Your task to perform on an android device: Clear the cart on newegg. Search for usb-a to usb-b on newegg, select the first entry, and add it to the cart. Image 0: 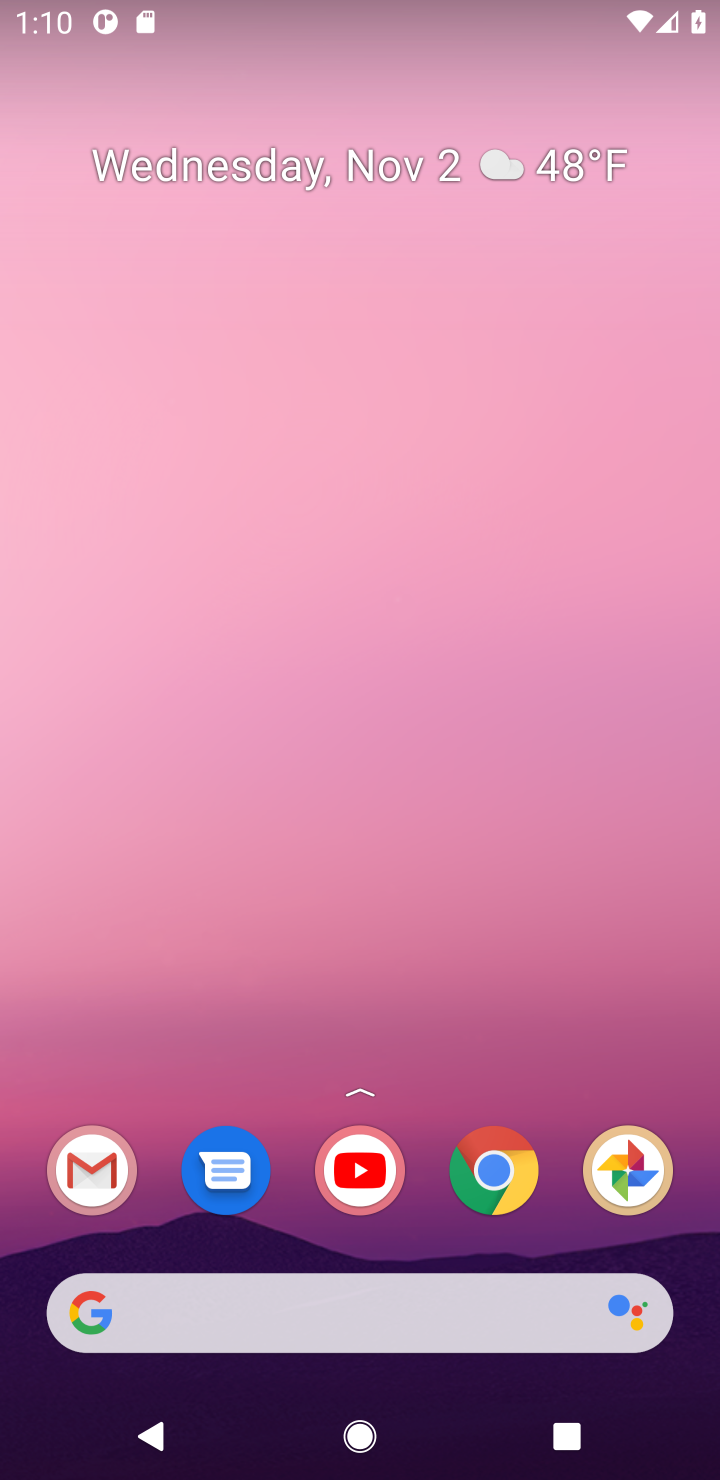
Step 0: press home button
Your task to perform on an android device: Clear the cart on newegg. Search for usb-a to usb-b on newegg, select the first entry, and add it to the cart. Image 1: 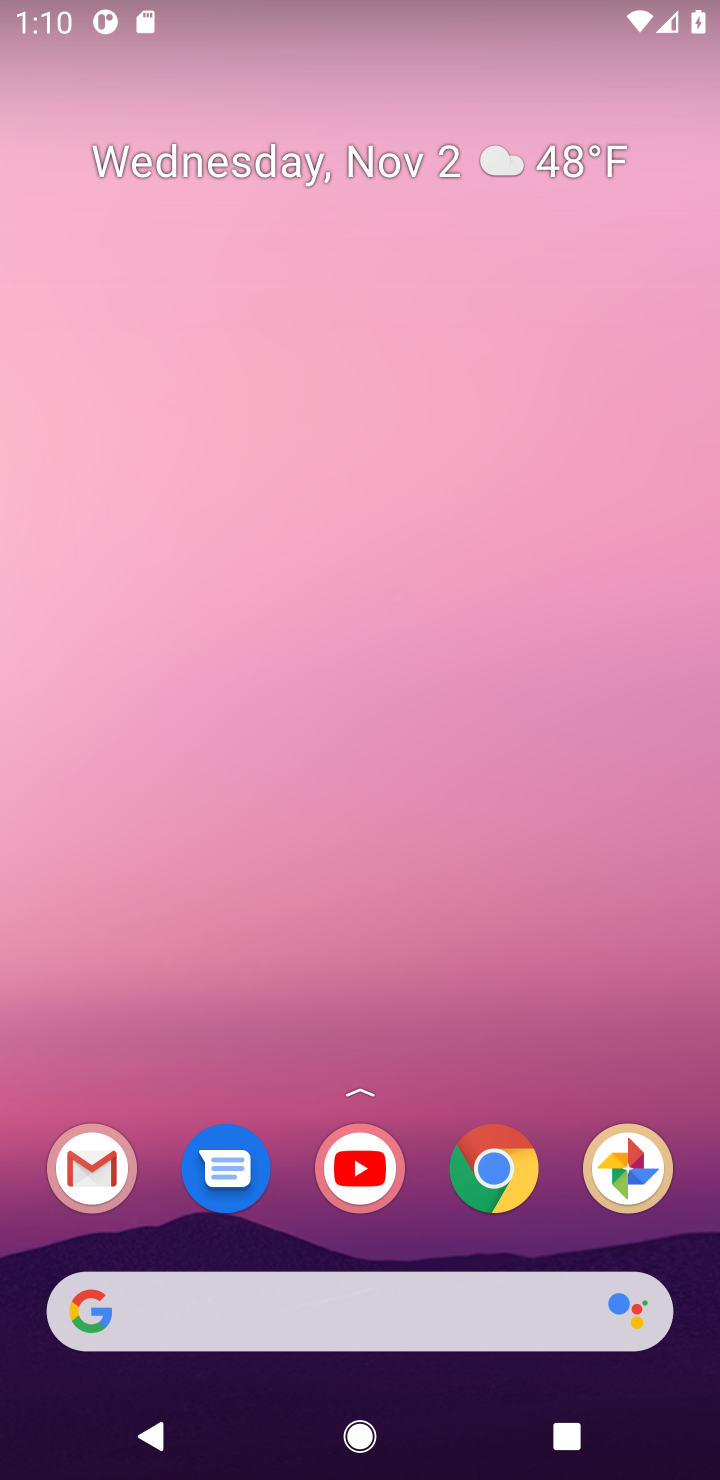
Step 1: click (324, 1291)
Your task to perform on an android device: Clear the cart on newegg. Search for usb-a to usb-b on newegg, select the first entry, and add it to the cart. Image 2: 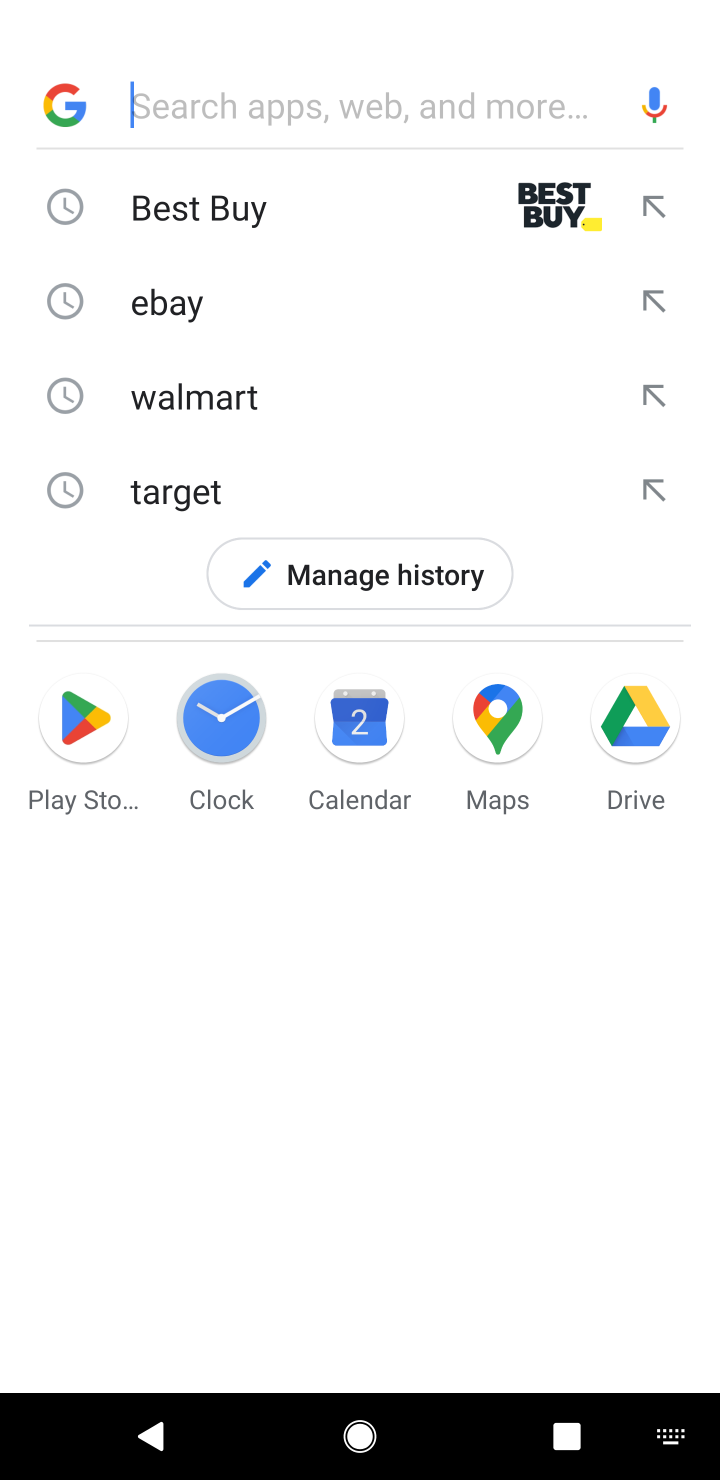
Step 2: type "newegg"
Your task to perform on an android device: Clear the cart on newegg. Search for usb-a to usb-b on newegg, select the first entry, and add it to the cart. Image 3: 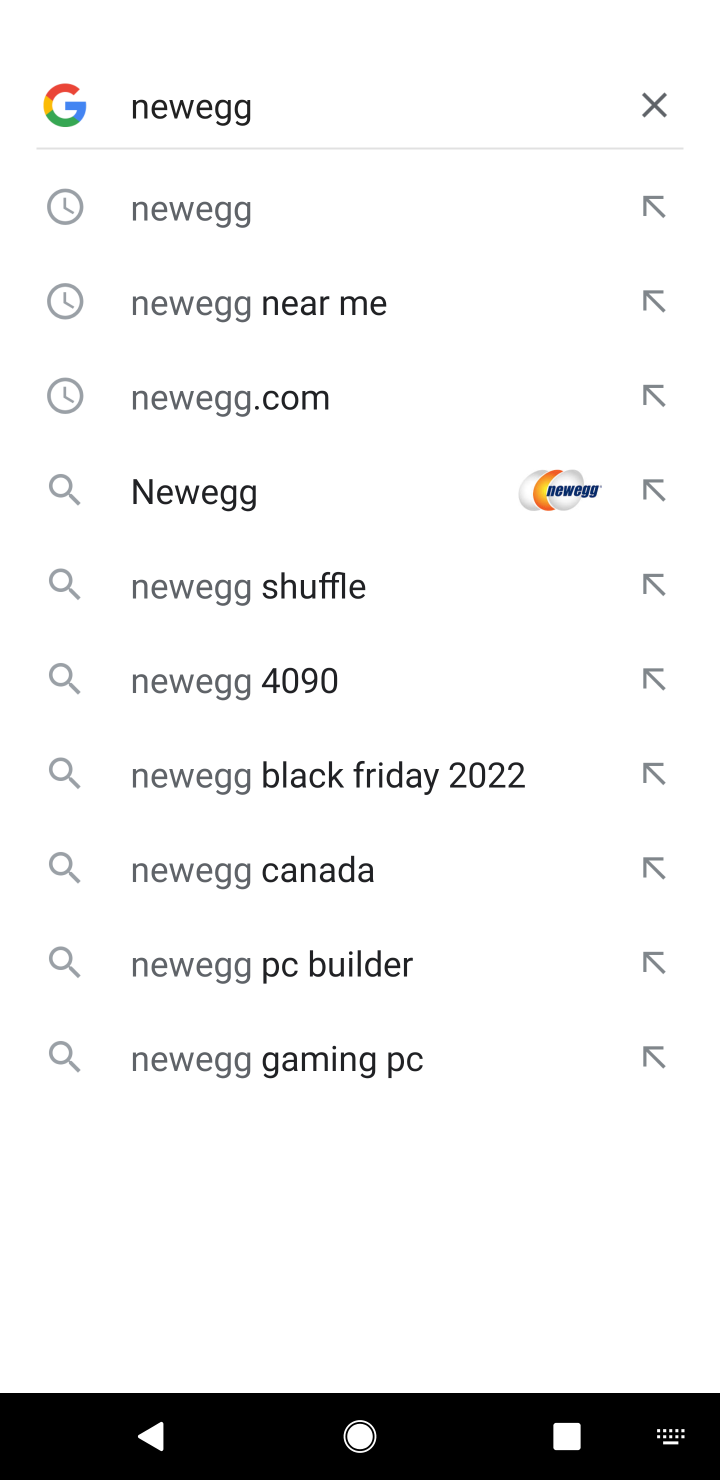
Step 3: click (202, 213)
Your task to perform on an android device: Clear the cart on newegg. Search for usb-a to usb-b on newegg, select the first entry, and add it to the cart. Image 4: 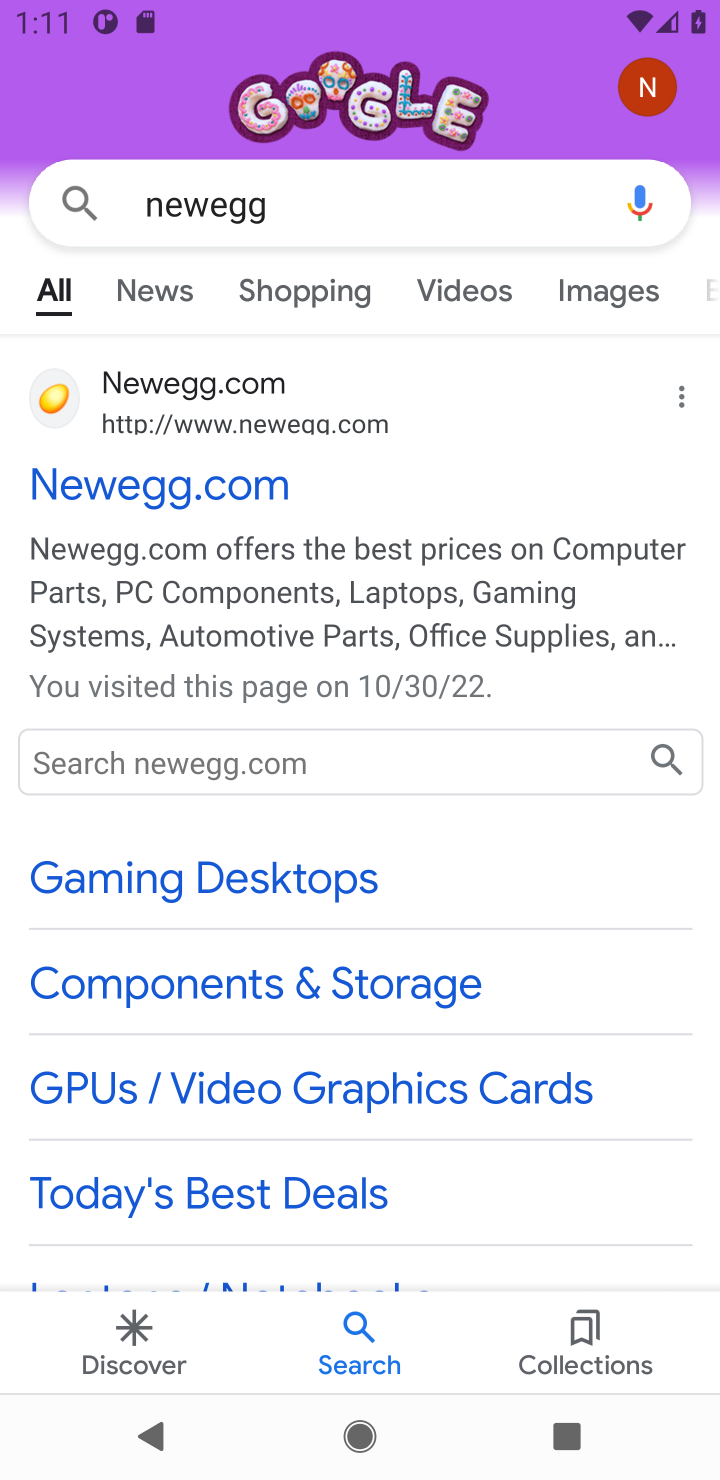
Step 4: click (128, 483)
Your task to perform on an android device: Clear the cart on newegg. Search for usb-a to usb-b on newegg, select the first entry, and add it to the cart. Image 5: 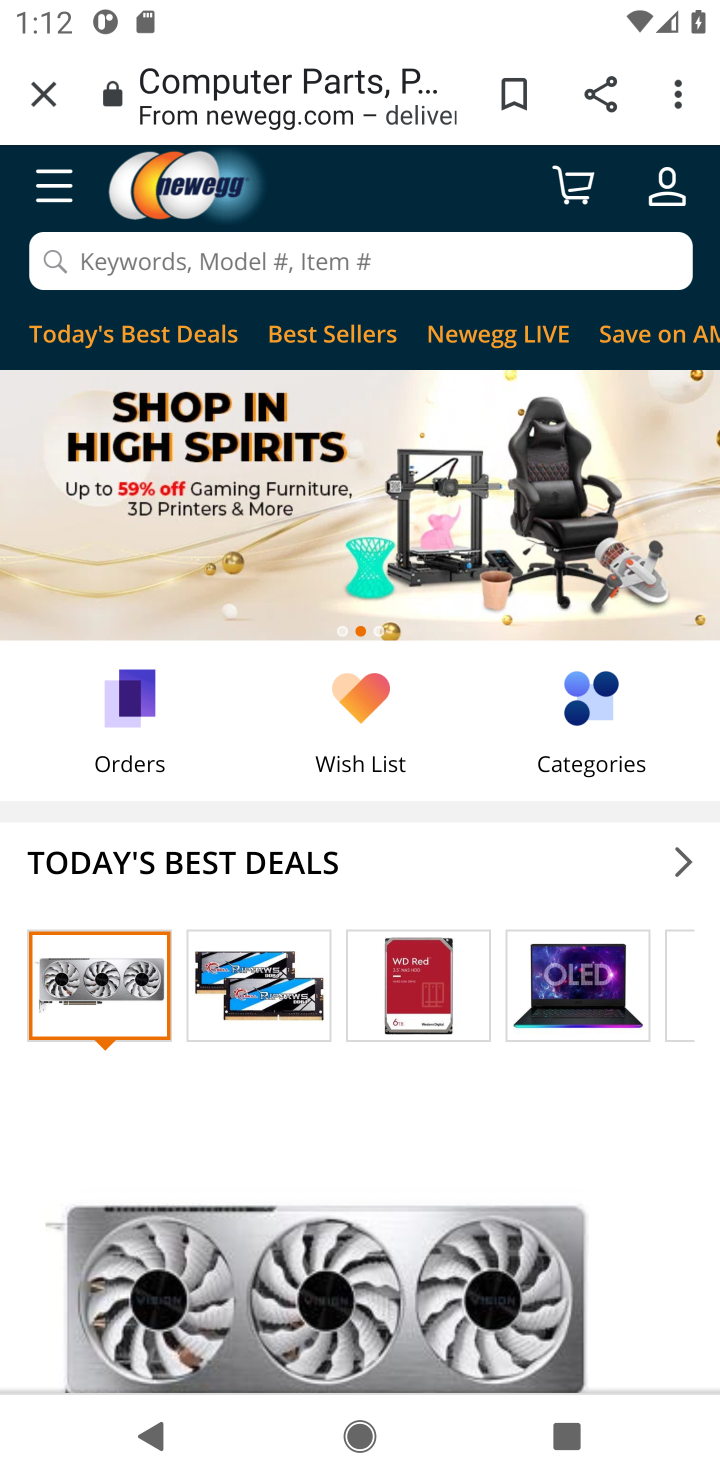
Step 5: click (307, 262)
Your task to perform on an android device: Clear the cart on newegg. Search for usb-a to usb-b on newegg, select the first entry, and add it to the cart. Image 6: 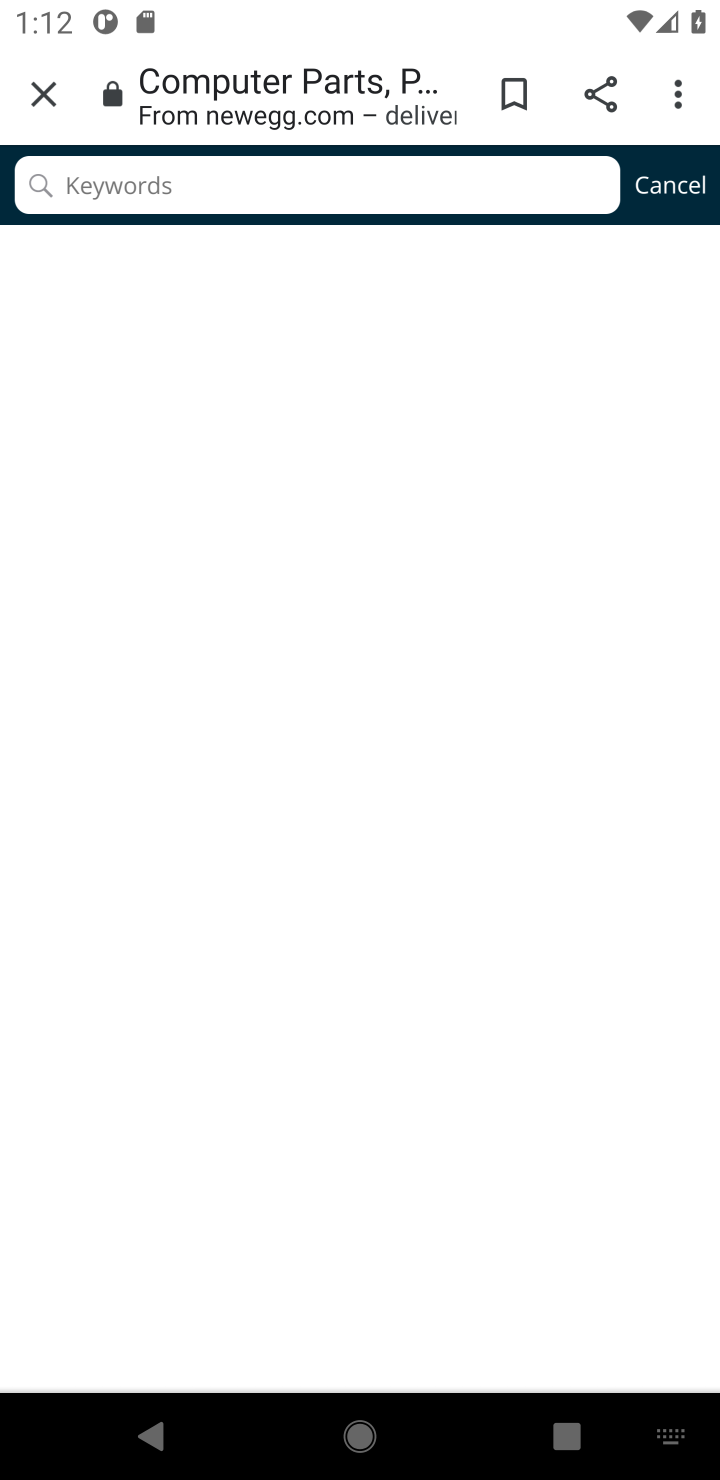
Step 6: click (680, 186)
Your task to perform on an android device: Clear the cart on newegg. Search for usb-a to usb-b on newegg, select the first entry, and add it to the cart. Image 7: 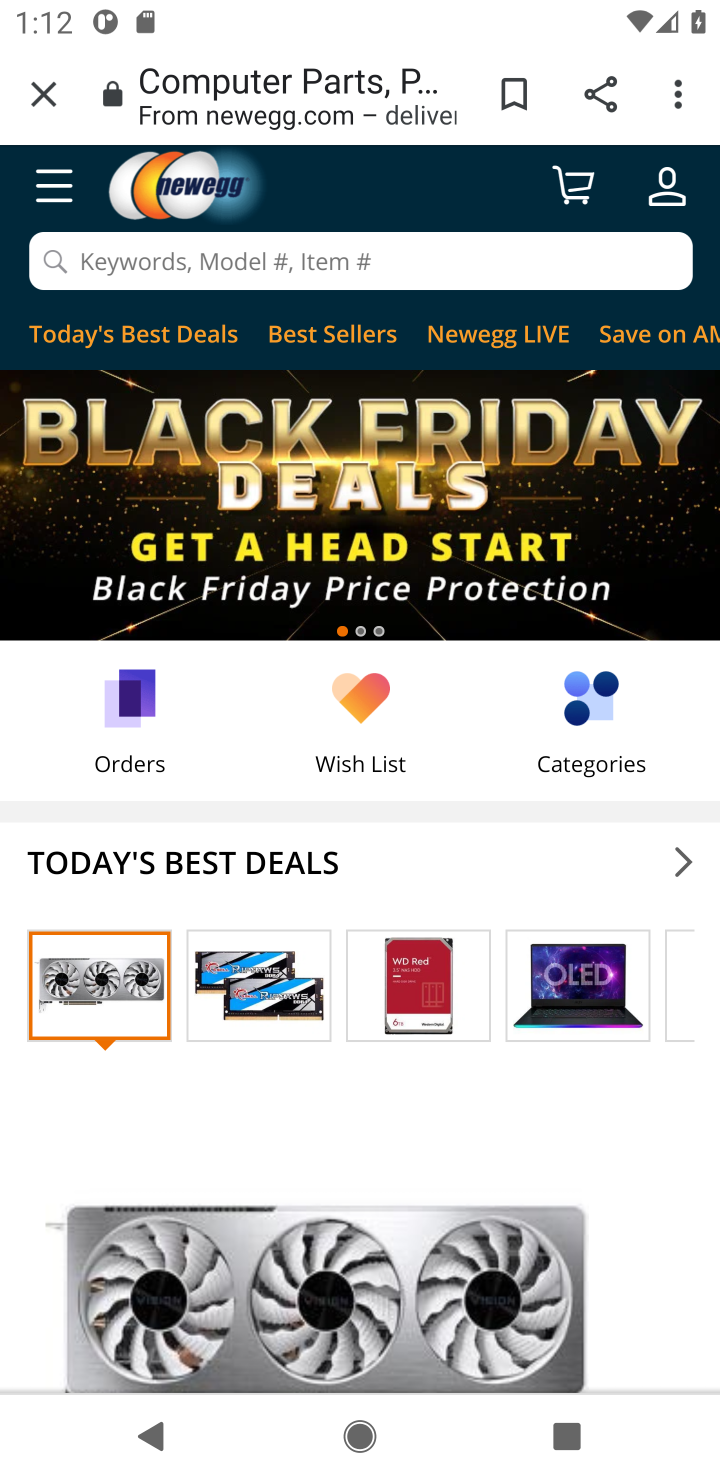
Step 7: click (567, 193)
Your task to perform on an android device: Clear the cart on newegg. Search for usb-a to usb-b on newegg, select the first entry, and add it to the cart. Image 8: 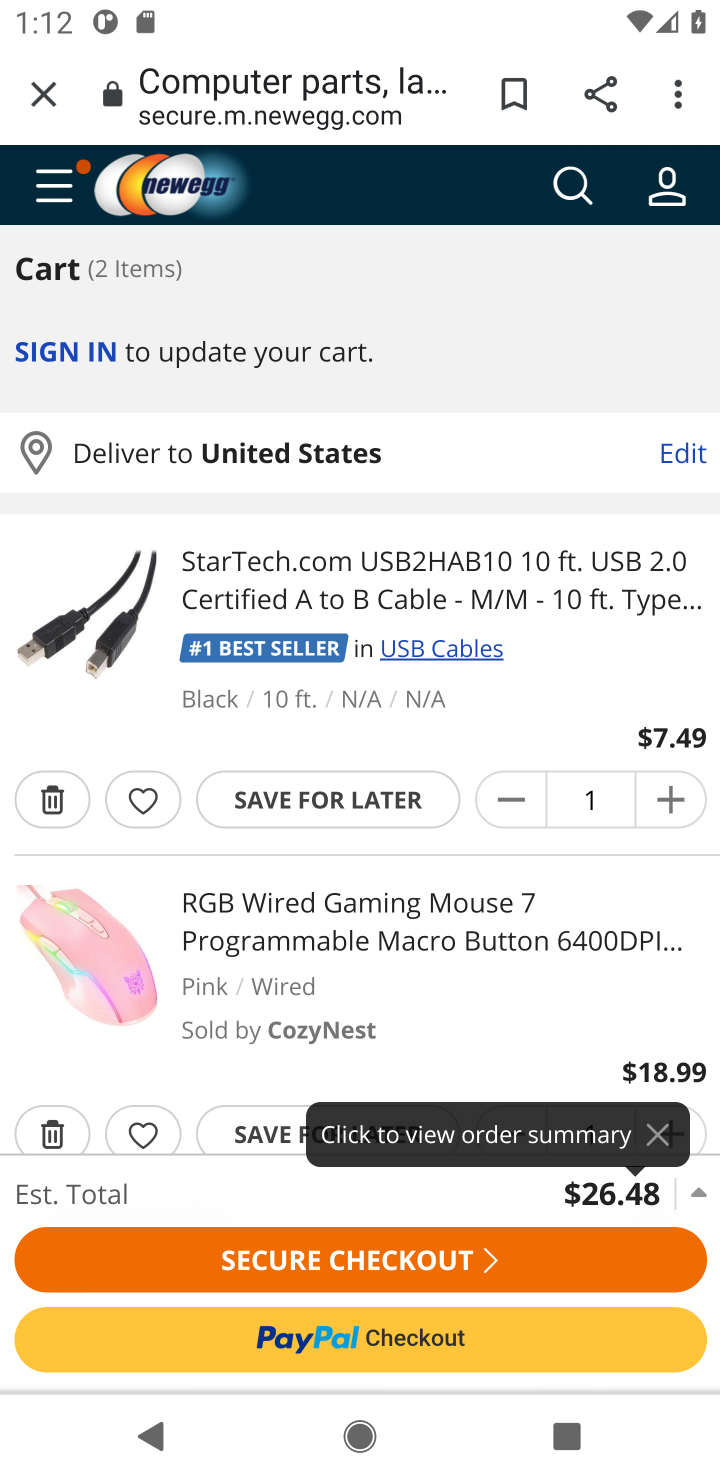
Step 8: click (32, 815)
Your task to perform on an android device: Clear the cart on newegg. Search for usb-a to usb-b on newegg, select the first entry, and add it to the cart. Image 9: 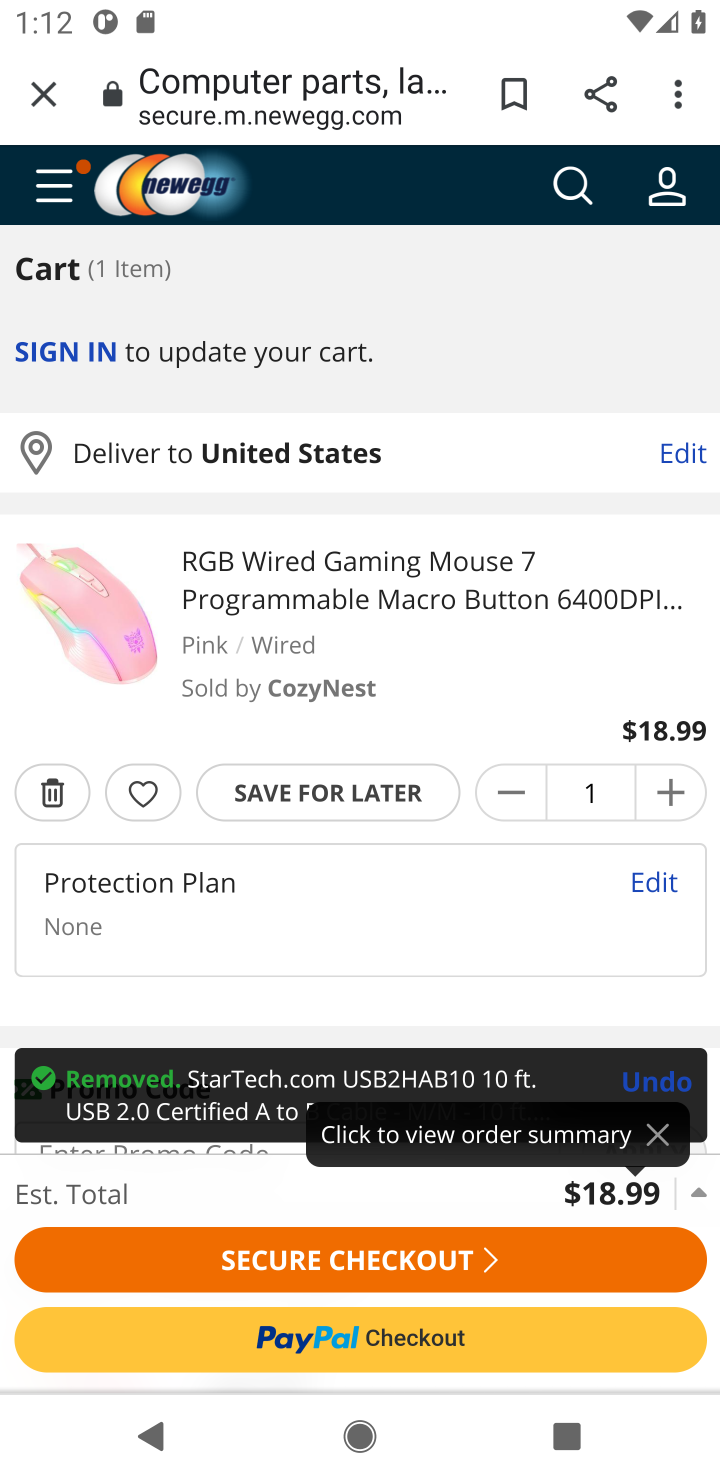
Step 9: click (39, 795)
Your task to perform on an android device: Clear the cart on newegg. Search for usb-a to usb-b on newegg, select the first entry, and add it to the cart. Image 10: 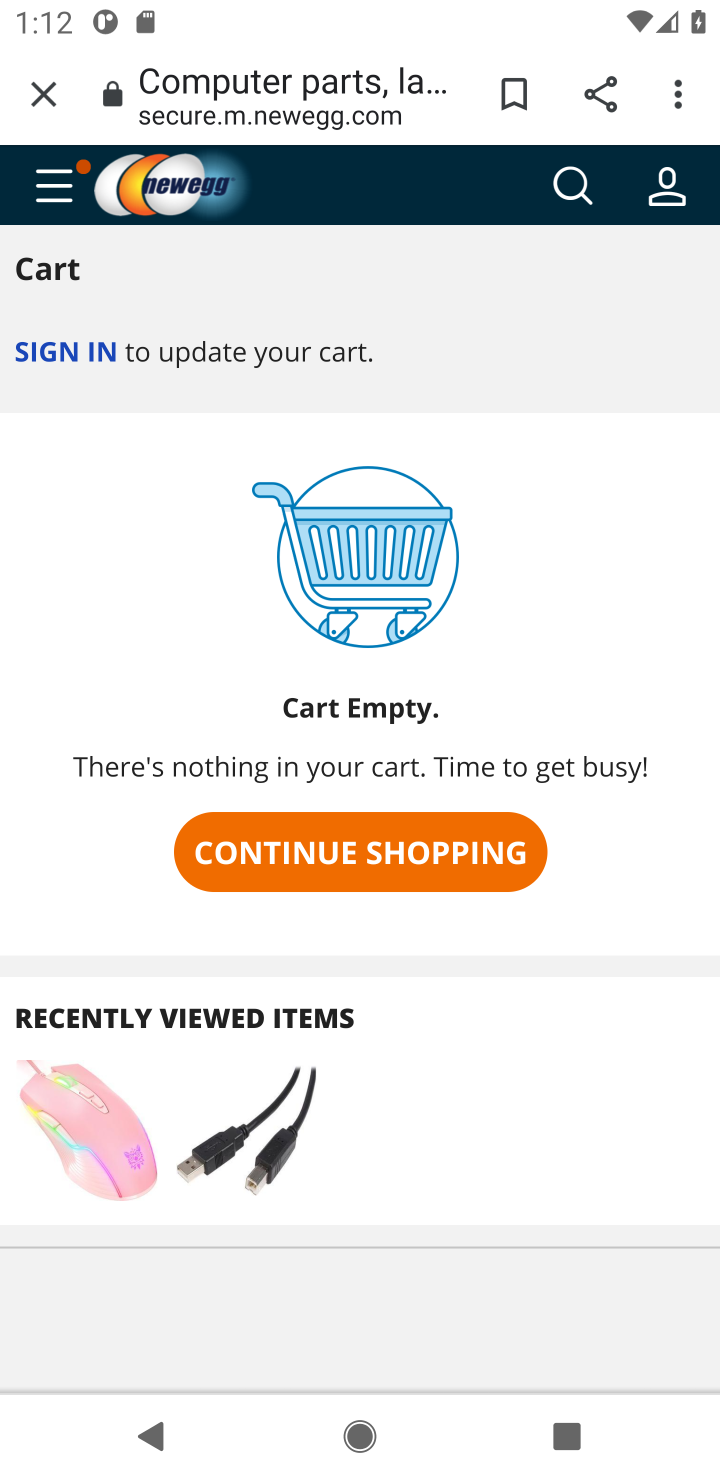
Step 10: click (573, 191)
Your task to perform on an android device: Clear the cart on newegg. Search for usb-a to usb-b on newegg, select the first entry, and add it to the cart. Image 11: 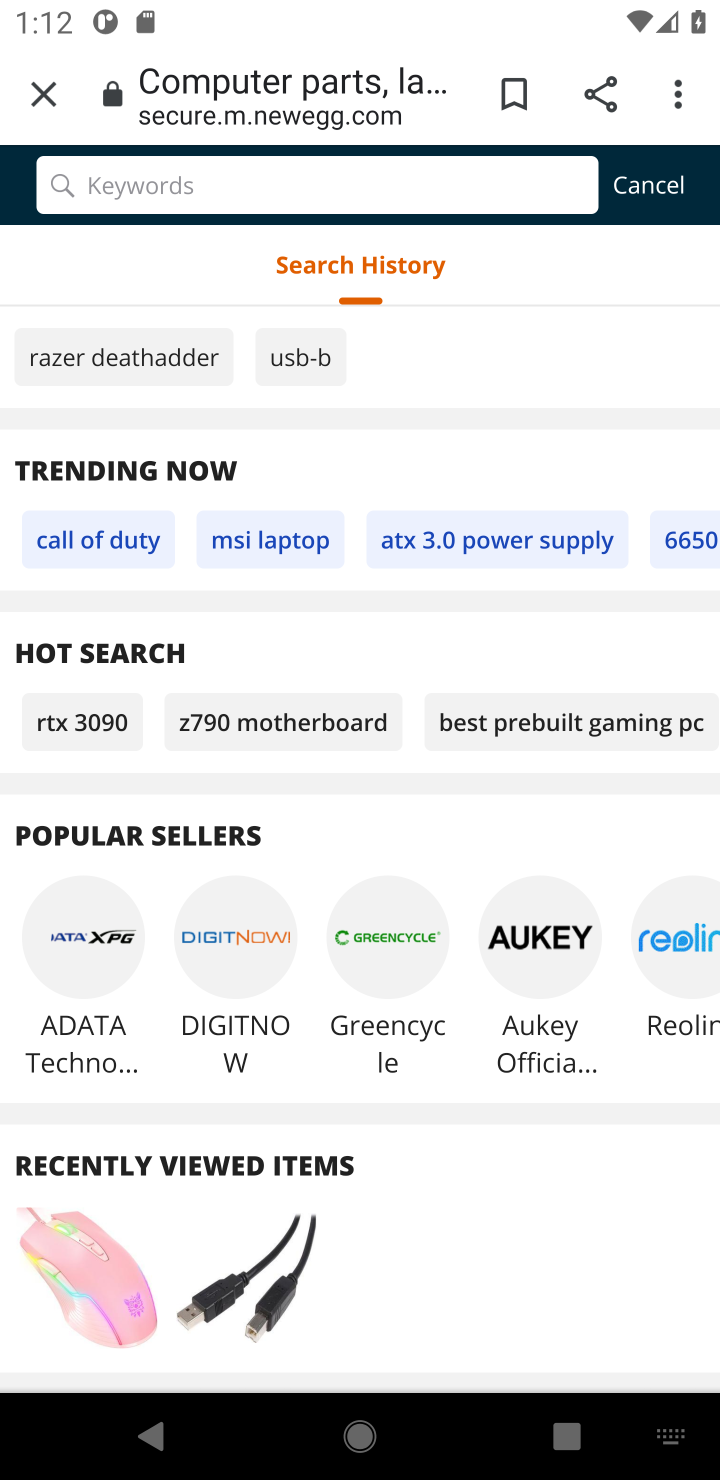
Step 11: type "usb-a to usb-b"
Your task to perform on an android device: Clear the cart on newegg. Search for usb-a to usb-b on newegg, select the first entry, and add it to the cart. Image 12: 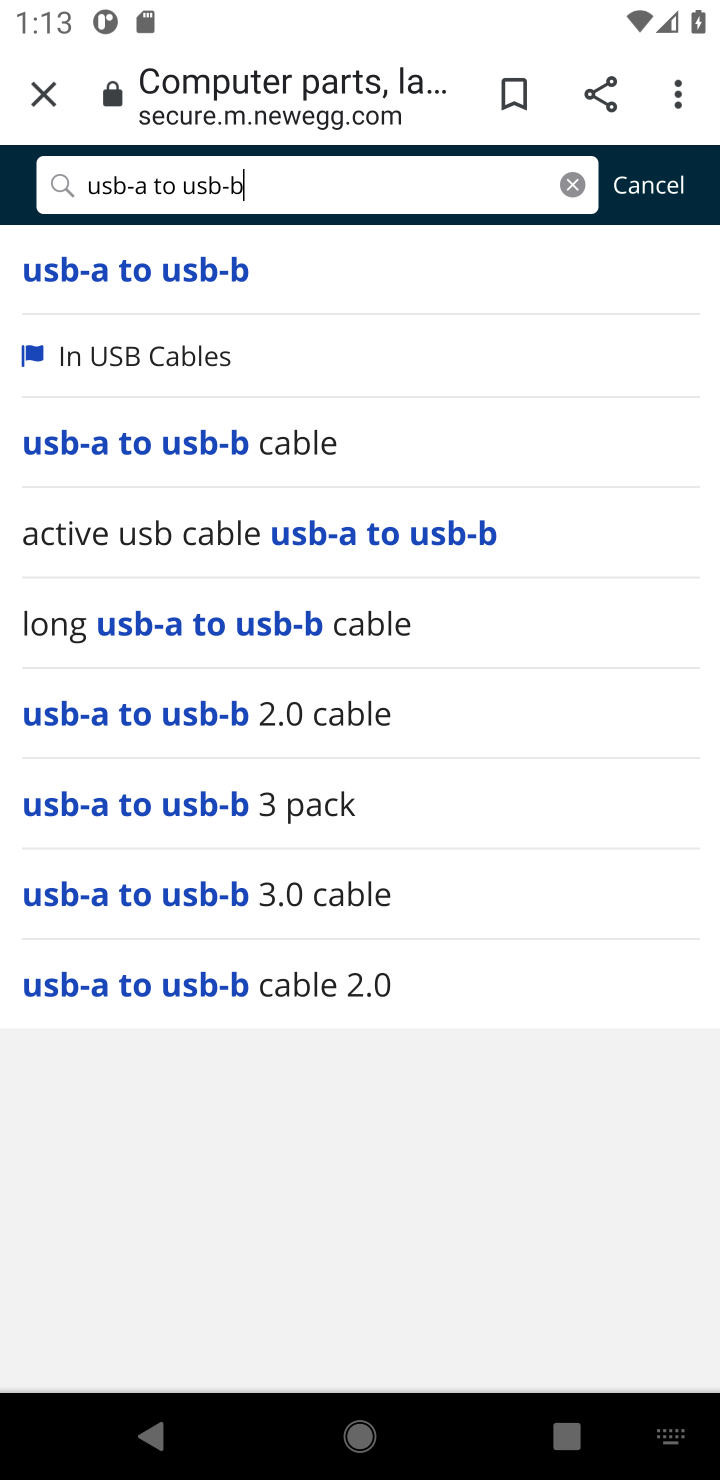
Step 12: click (168, 268)
Your task to perform on an android device: Clear the cart on newegg. Search for usb-a to usb-b on newegg, select the first entry, and add it to the cart. Image 13: 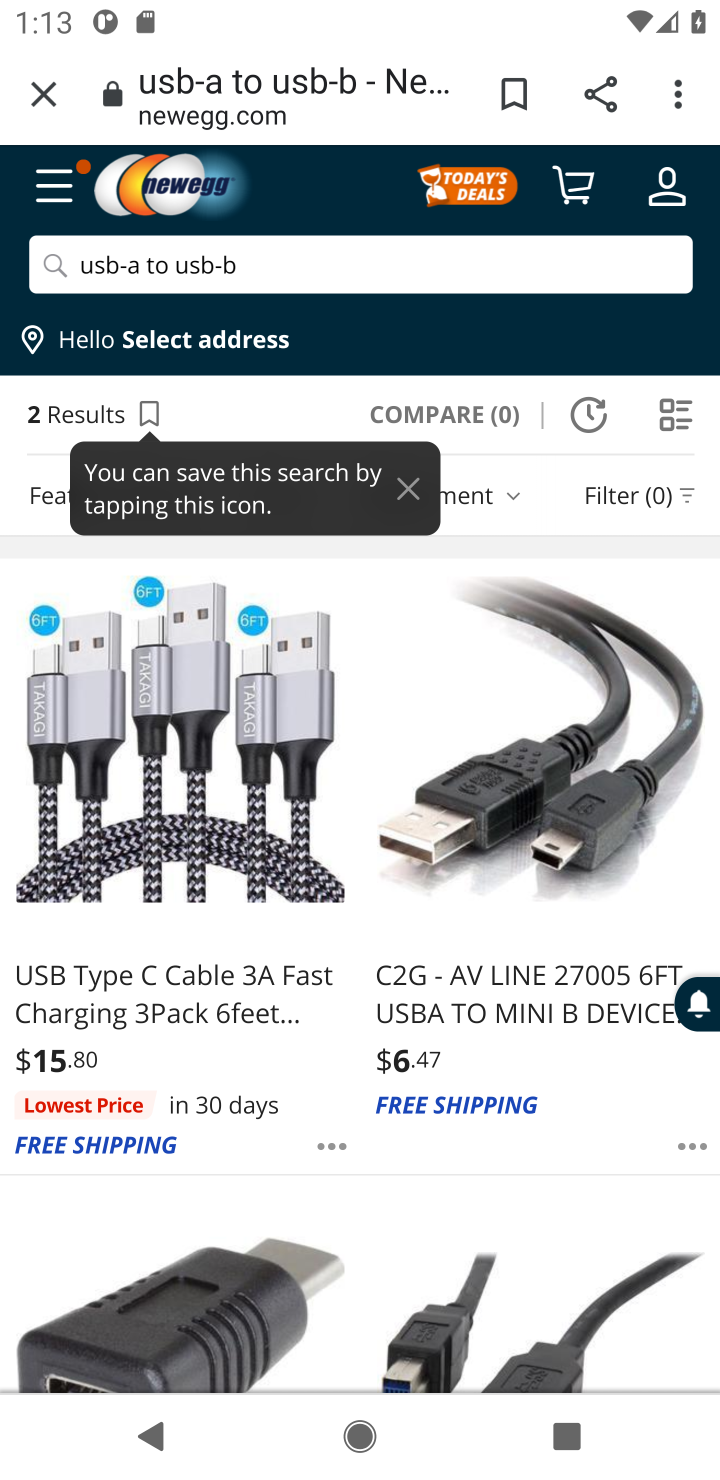
Step 13: click (166, 676)
Your task to perform on an android device: Clear the cart on newegg. Search for usb-a to usb-b on newegg, select the first entry, and add it to the cart. Image 14: 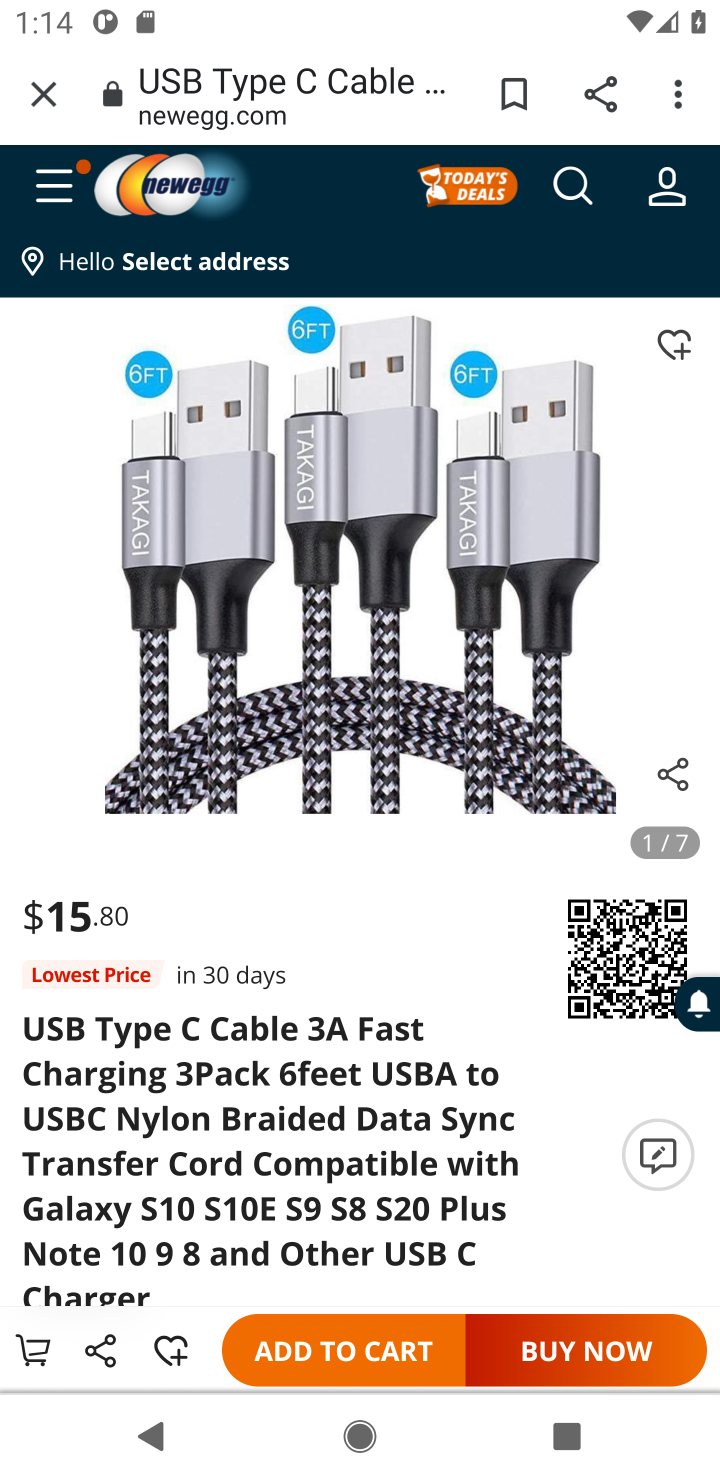
Step 14: click (351, 1365)
Your task to perform on an android device: Clear the cart on newegg. Search for usb-a to usb-b on newegg, select the first entry, and add it to the cart. Image 15: 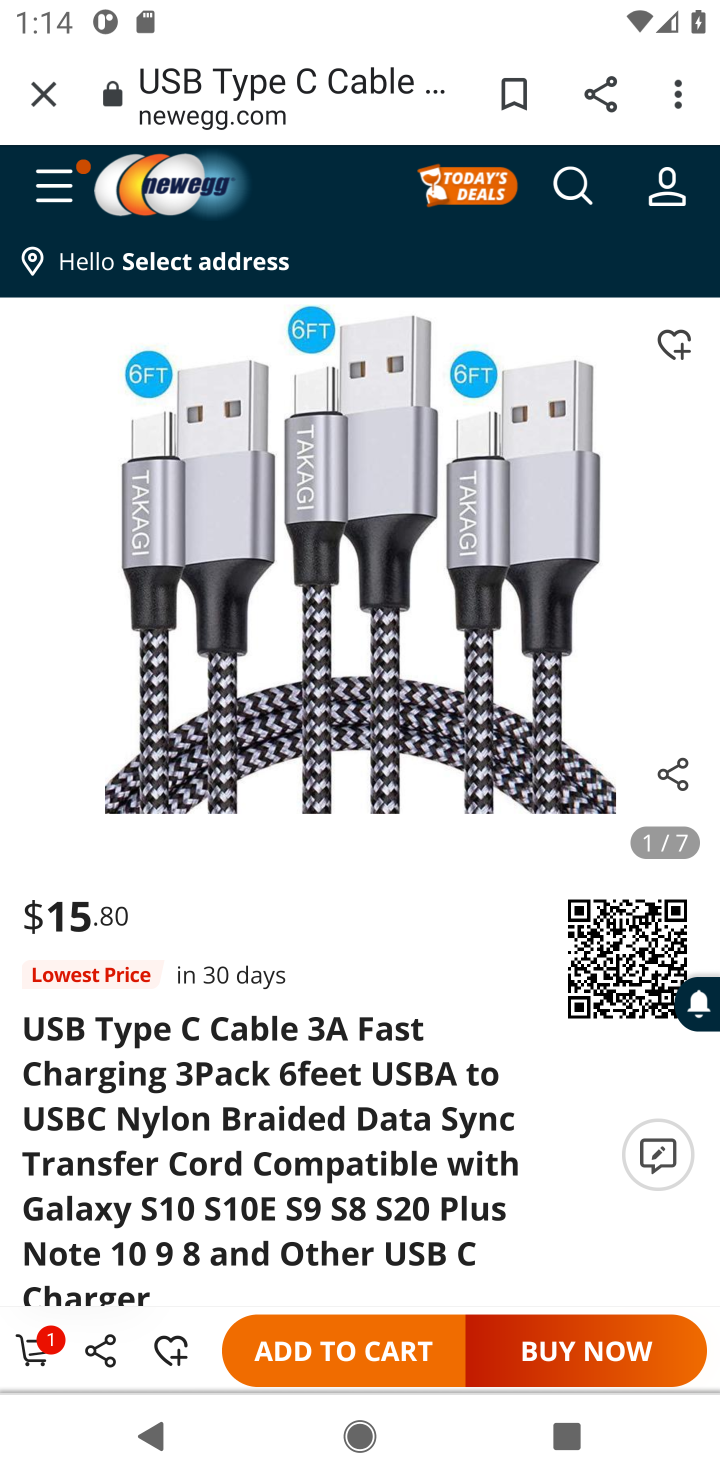
Step 15: click (334, 1361)
Your task to perform on an android device: Clear the cart on newegg. Search for usb-a to usb-b on newegg, select the first entry, and add it to the cart. Image 16: 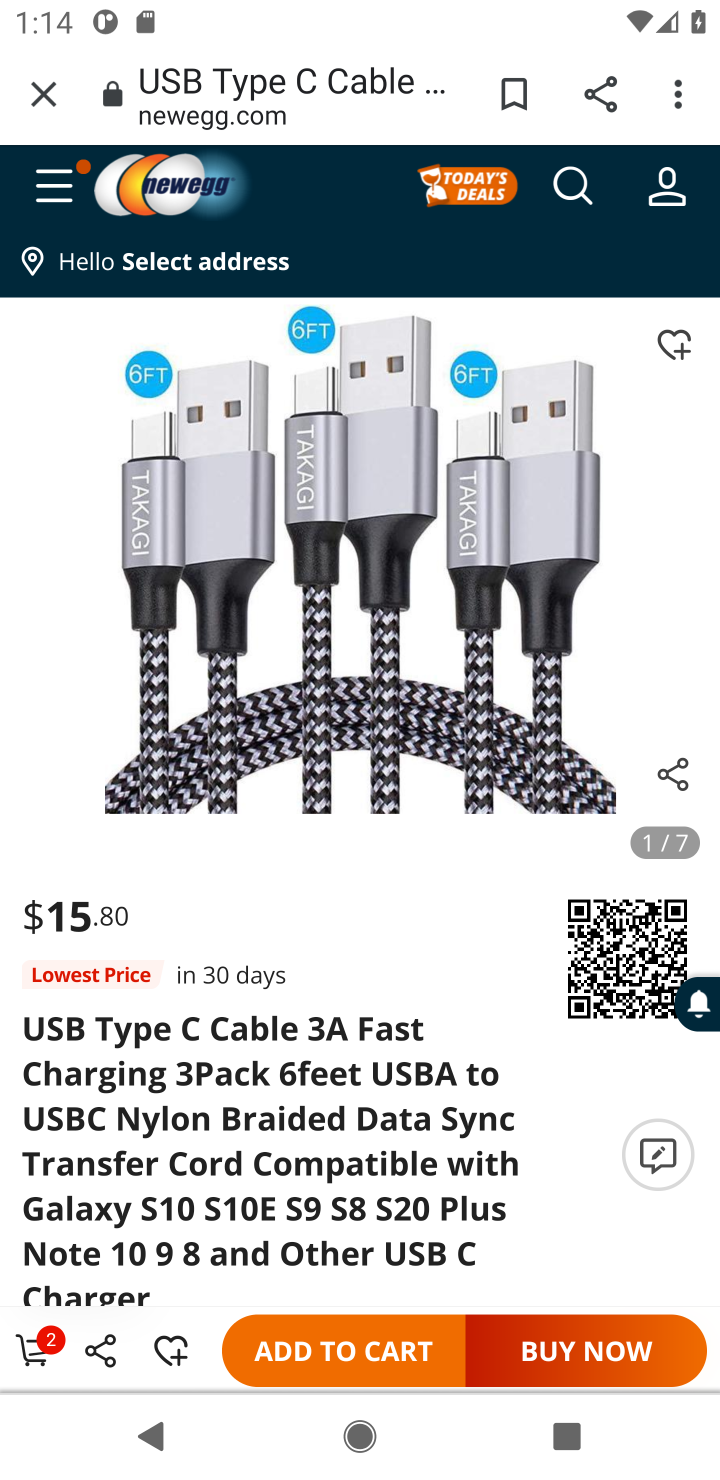
Step 16: task complete